Your task to perform on an android device: turn on data saver in the chrome app Image 0: 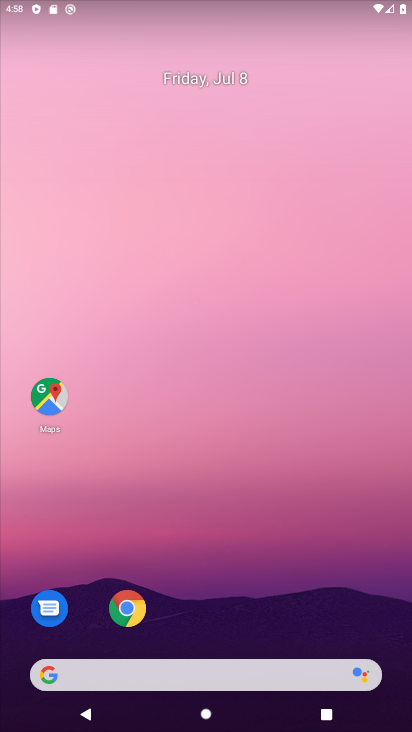
Step 0: drag from (291, 661) to (287, 6)
Your task to perform on an android device: turn on data saver in the chrome app Image 1: 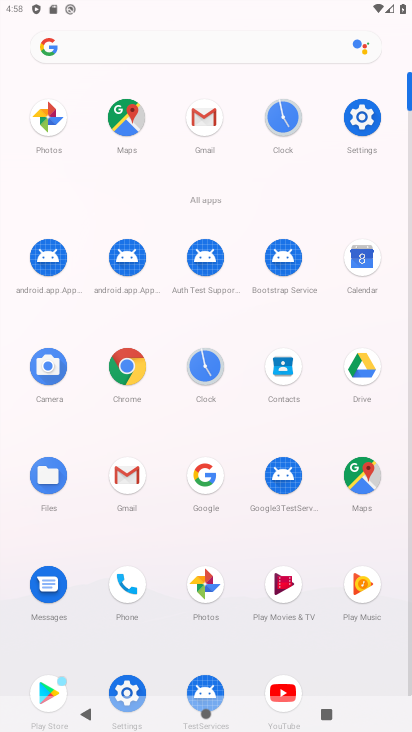
Step 1: click (127, 370)
Your task to perform on an android device: turn on data saver in the chrome app Image 2: 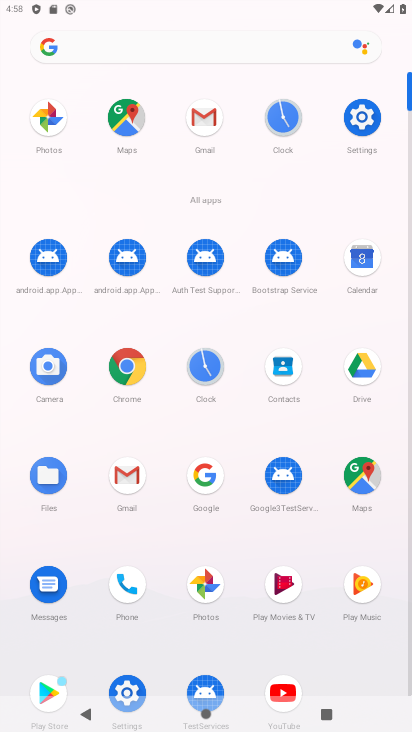
Step 2: click (113, 360)
Your task to perform on an android device: turn on data saver in the chrome app Image 3: 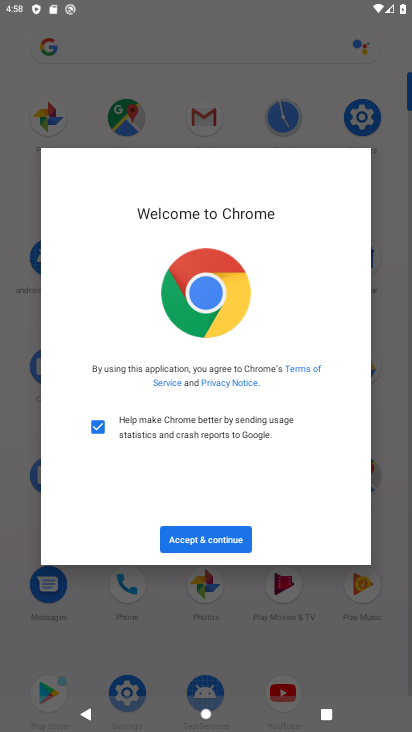
Step 3: click (218, 542)
Your task to perform on an android device: turn on data saver in the chrome app Image 4: 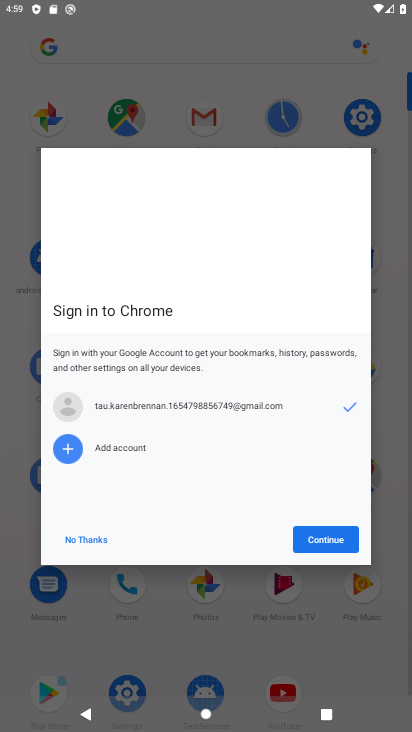
Step 4: click (77, 540)
Your task to perform on an android device: turn on data saver in the chrome app Image 5: 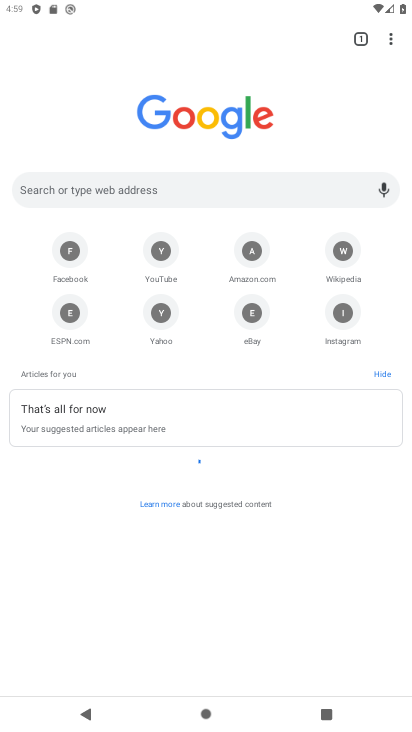
Step 5: drag from (392, 50) to (304, 346)
Your task to perform on an android device: turn on data saver in the chrome app Image 6: 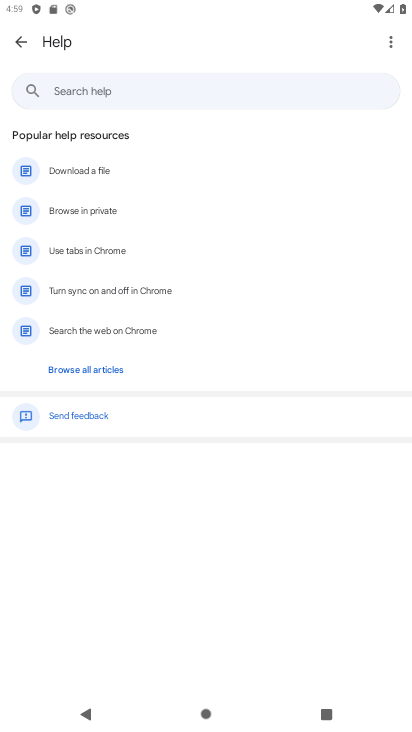
Step 6: press back button
Your task to perform on an android device: turn on data saver in the chrome app Image 7: 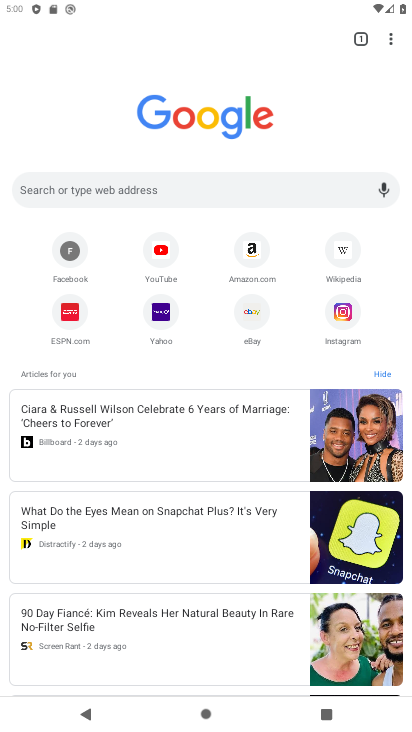
Step 7: drag from (383, 30) to (287, 333)
Your task to perform on an android device: turn on data saver in the chrome app Image 8: 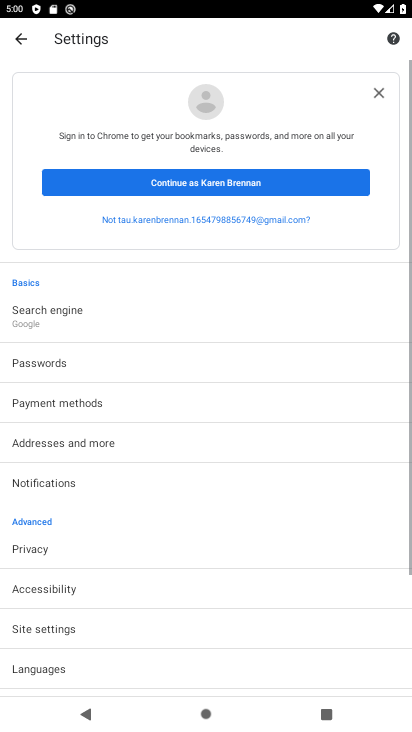
Step 8: drag from (174, 508) to (185, 104)
Your task to perform on an android device: turn on data saver in the chrome app Image 9: 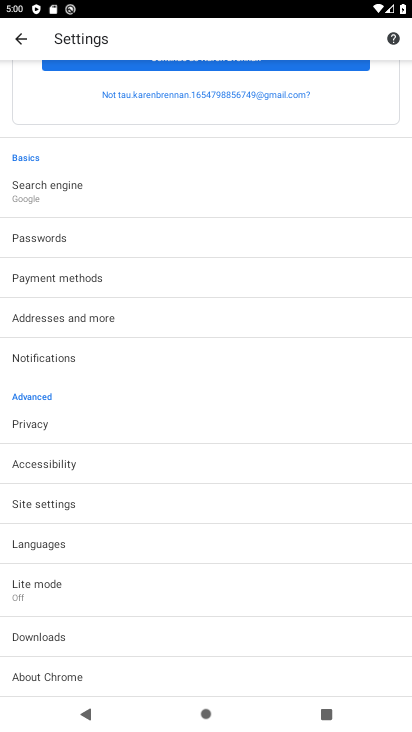
Step 9: click (35, 589)
Your task to perform on an android device: turn on data saver in the chrome app Image 10: 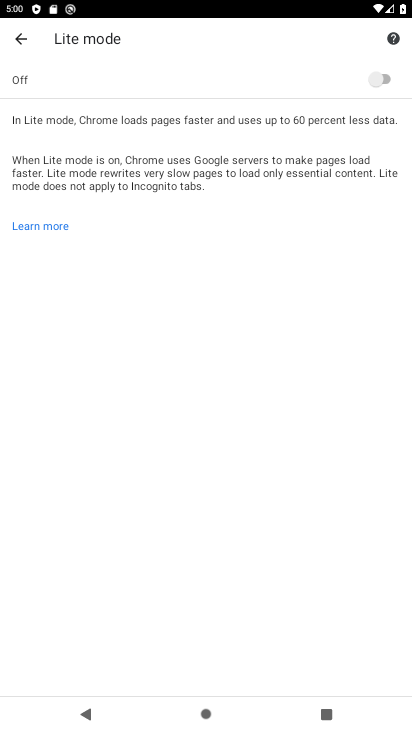
Step 10: click (390, 76)
Your task to perform on an android device: turn on data saver in the chrome app Image 11: 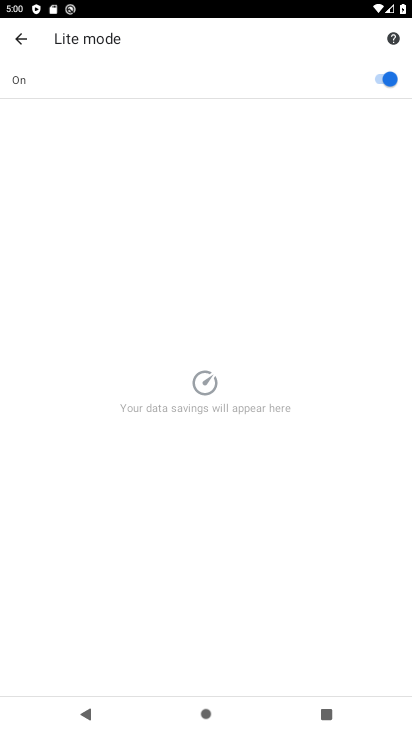
Step 11: task complete